Your task to perform on an android device: turn vacation reply on in the gmail app Image 0: 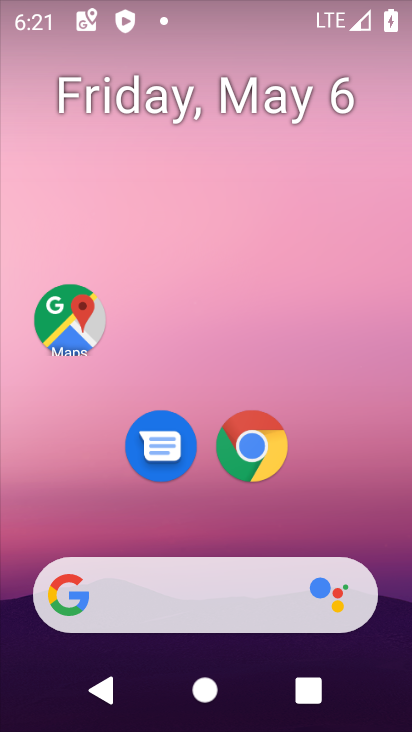
Step 0: drag from (315, 519) to (254, 144)
Your task to perform on an android device: turn vacation reply on in the gmail app Image 1: 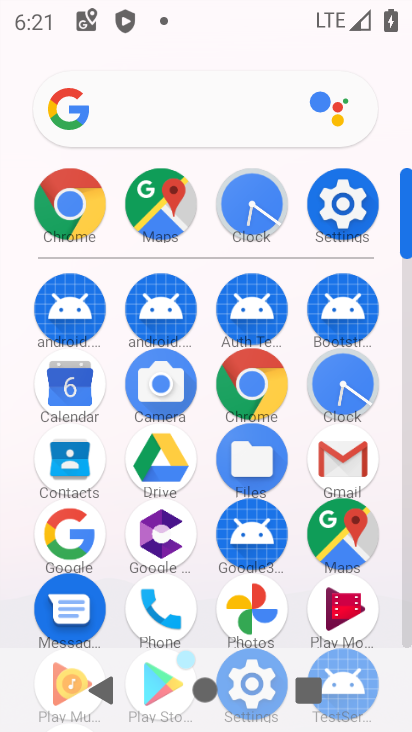
Step 1: click (365, 464)
Your task to perform on an android device: turn vacation reply on in the gmail app Image 2: 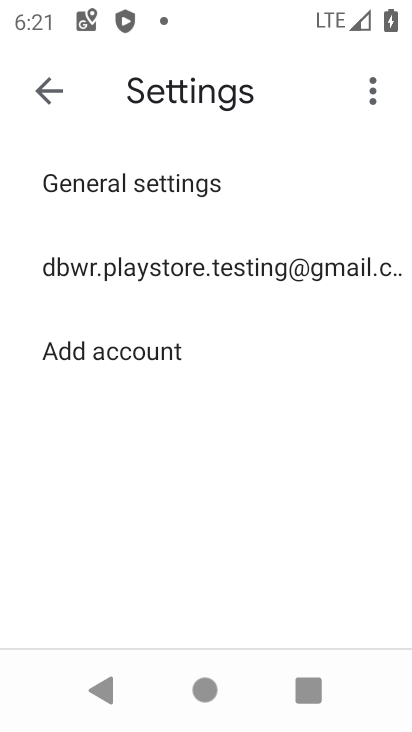
Step 2: click (245, 257)
Your task to perform on an android device: turn vacation reply on in the gmail app Image 3: 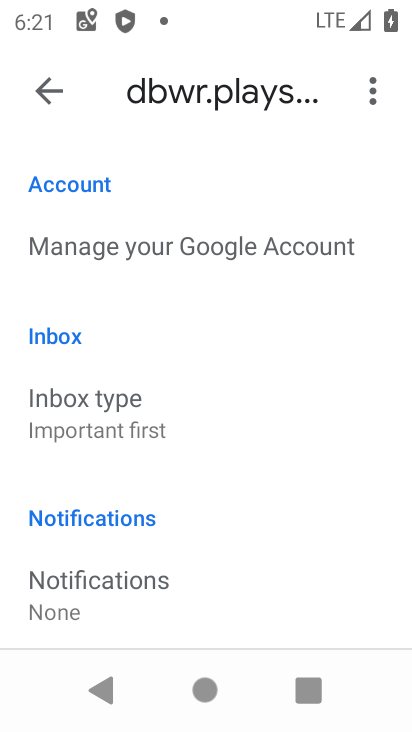
Step 3: drag from (185, 555) to (129, 71)
Your task to perform on an android device: turn vacation reply on in the gmail app Image 4: 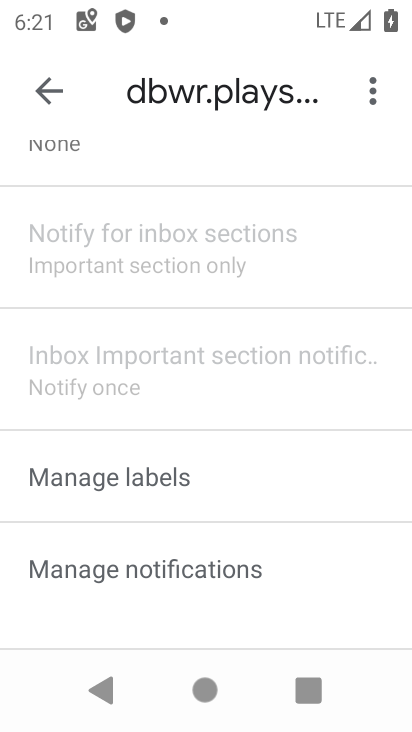
Step 4: drag from (197, 517) to (186, 84)
Your task to perform on an android device: turn vacation reply on in the gmail app Image 5: 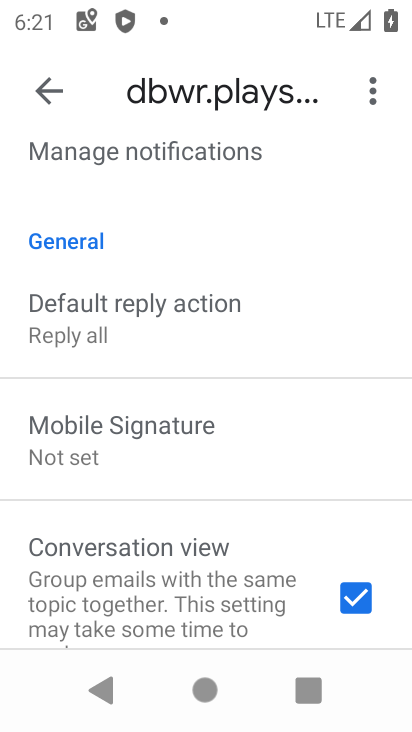
Step 5: drag from (209, 571) to (232, 166)
Your task to perform on an android device: turn vacation reply on in the gmail app Image 6: 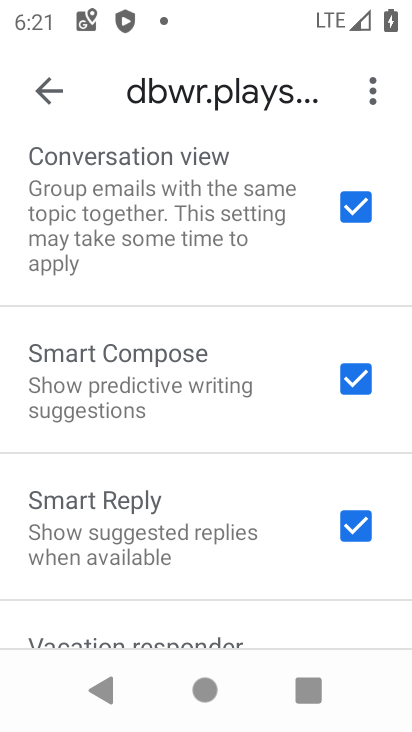
Step 6: drag from (172, 587) to (204, 287)
Your task to perform on an android device: turn vacation reply on in the gmail app Image 7: 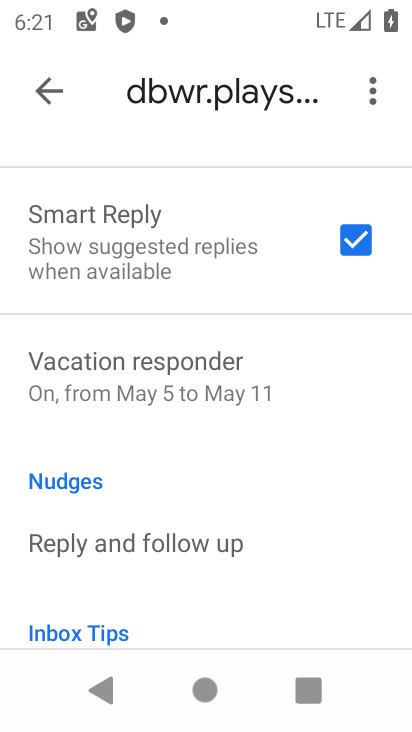
Step 7: click (181, 390)
Your task to perform on an android device: turn vacation reply on in the gmail app Image 8: 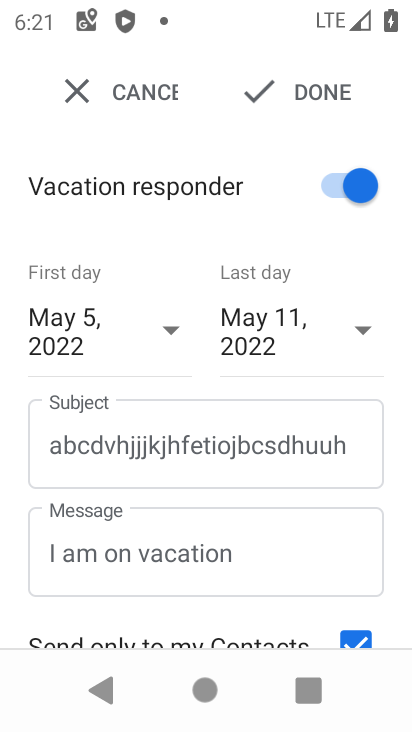
Step 8: task complete